Your task to perform on an android device: turn off location history Image 0: 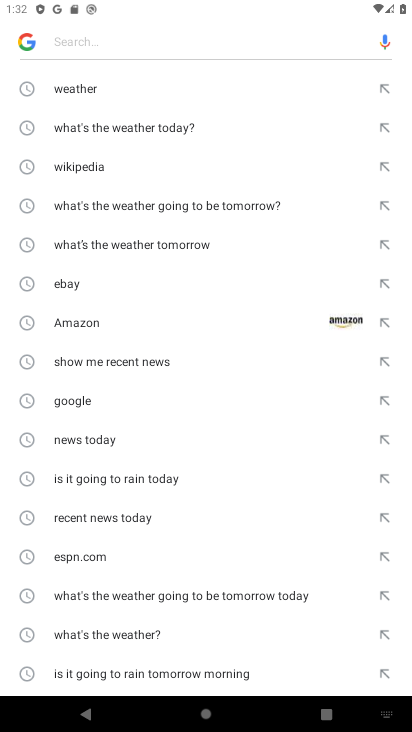
Step 0: drag from (198, 607) to (162, 75)
Your task to perform on an android device: turn off location history Image 1: 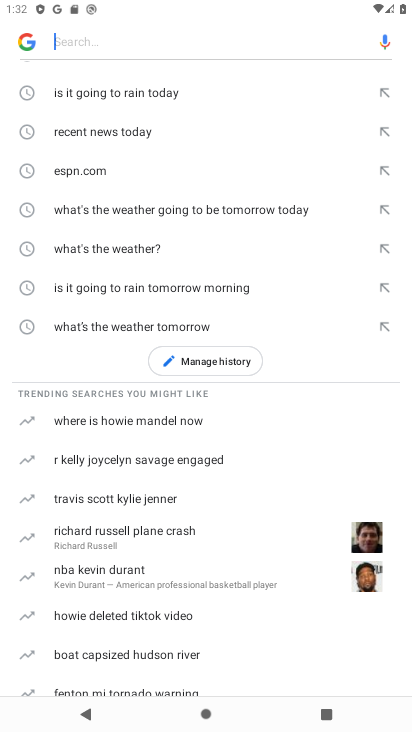
Step 1: drag from (223, 5) to (260, 625)
Your task to perform on an android device: turn off location history Image 2: 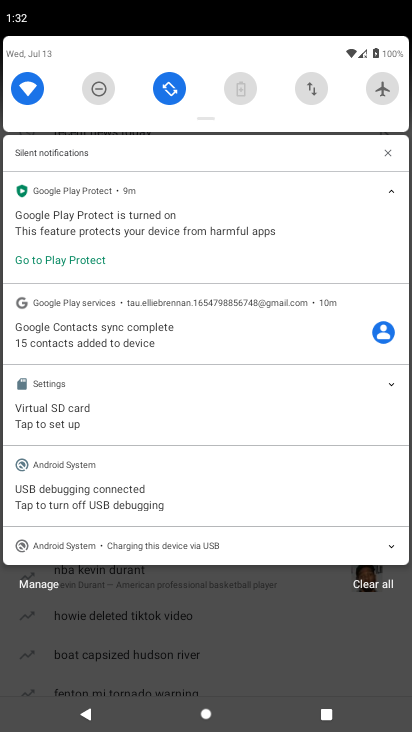
Step 2: drag from (264, 60) to (234, 729)
Your task to perform on an android device: turn off location history Image 3: 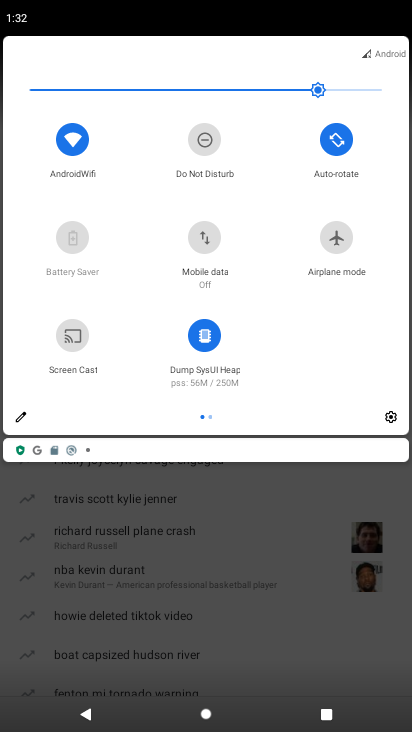
Step 3: click (390, 422)
Your task to perform on an android device: turn off location history Image 4: 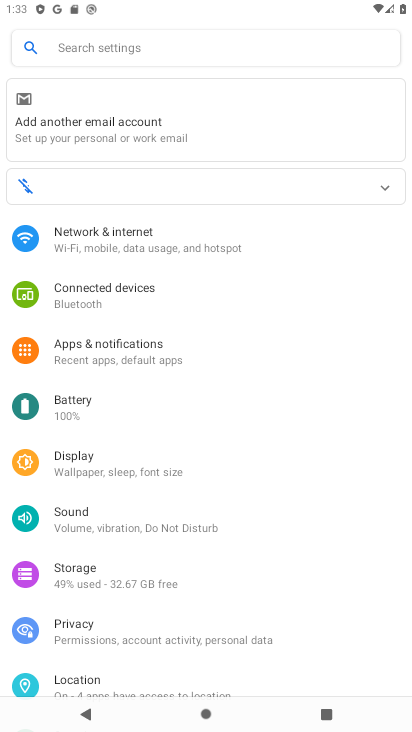
Step 4: click (90, 682)
Your task to perform on an android device: turn off location history Image 5: 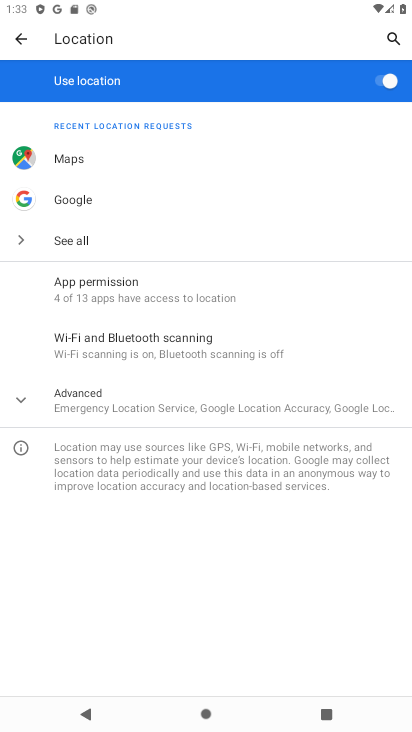
Step 5: click (160, 405)
Your task to perform on an android device: turn off location history Image 6: 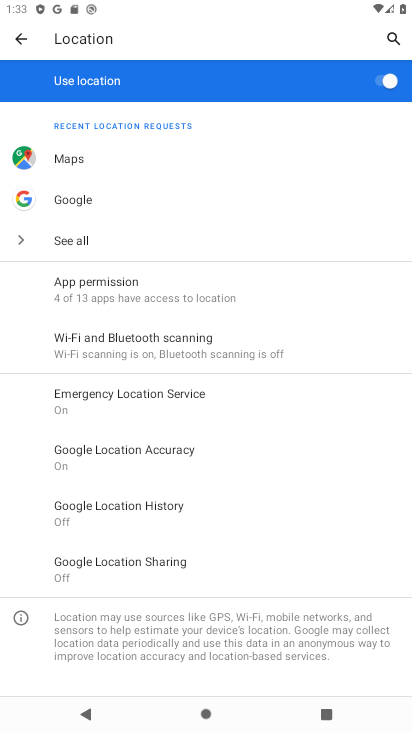
Step 6: click (181, 514)
Your task to perform on an android device: turn off location history Image 7: 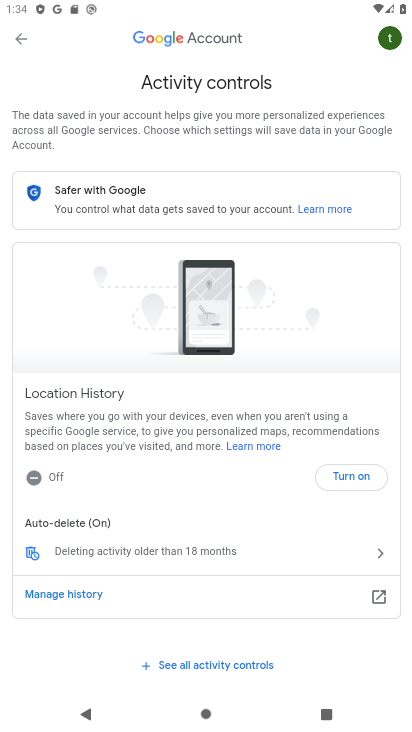
Step 7: task complete